Your task to perform on an android device: show emergency info Image 0: 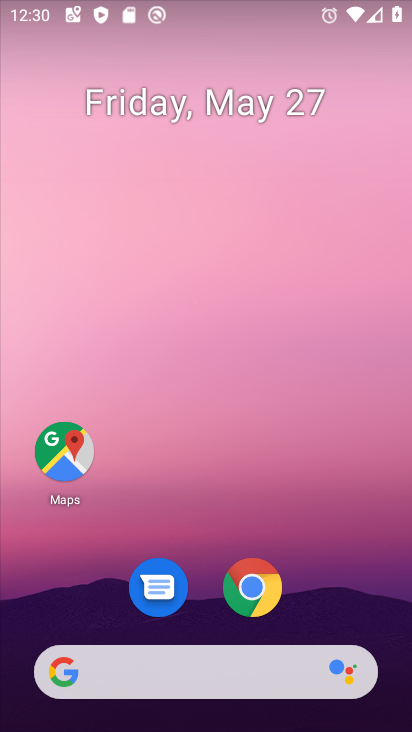
Step 0: drag from (283, 683) to (282, 29)
Your task to perform on an android device: show emergency info Image 1: 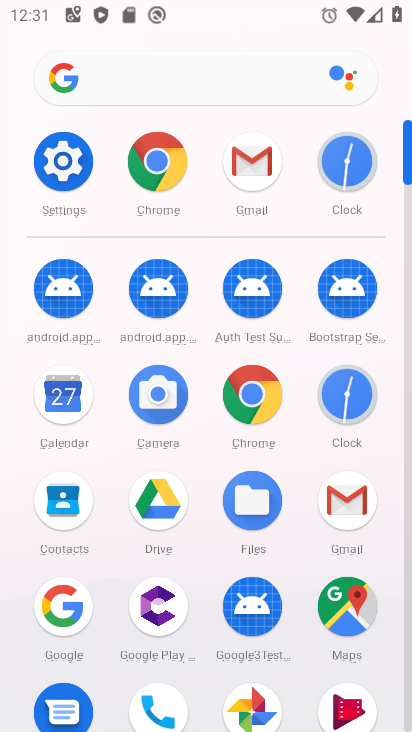
Step 1: click (49, 148)
Your task to perform on an android device: show emergency info Image 2: 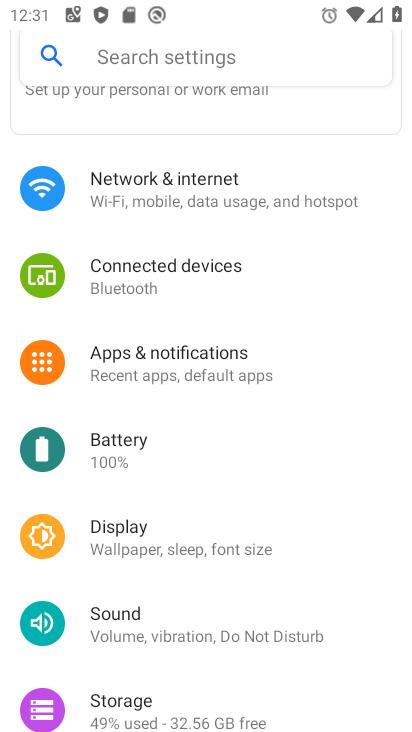
Step 2: click (129, 55)
Your task to perform on an android device: show emergency info Image 3: 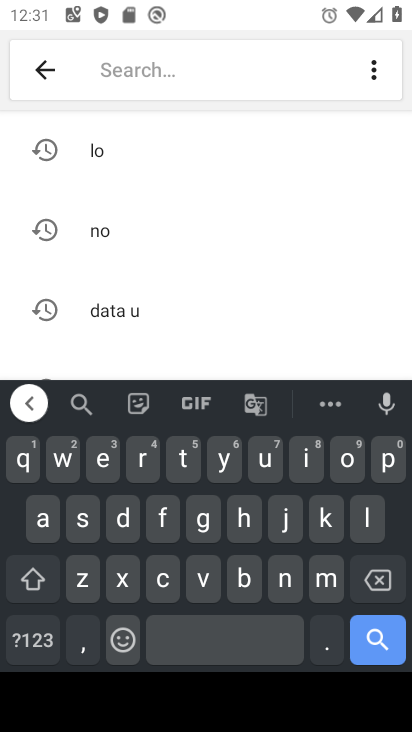
Step 3: click (115, 465)
Your task to perform on an android device: show emergency info Image 4: 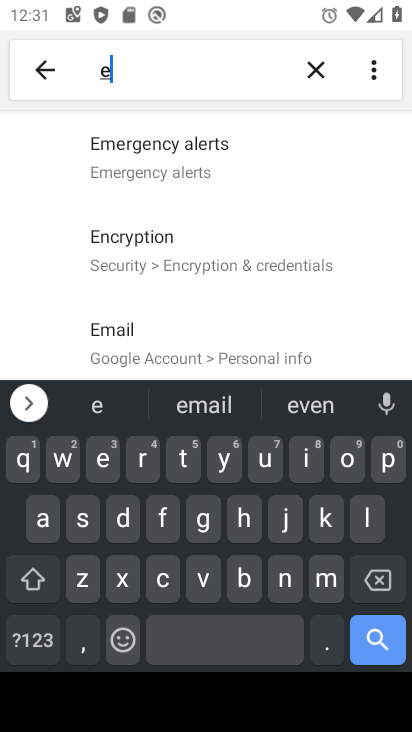
Step 4: click (319, 583)
Your task to perform on an android device: show emergency info Image 5: 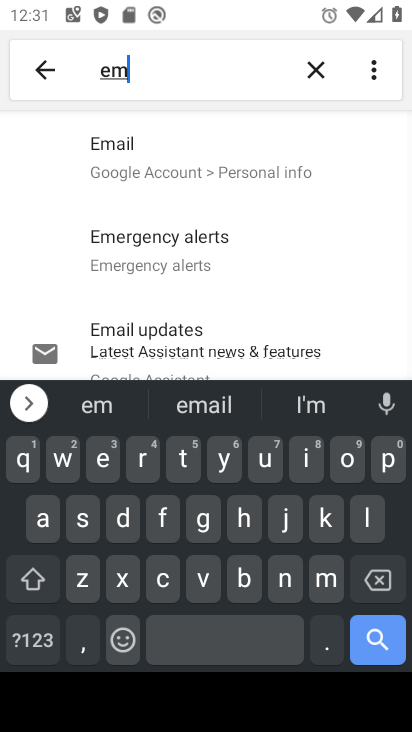
Step 5: click (103, 466)
Your task to perform on an android device: show emergency info Image 6: 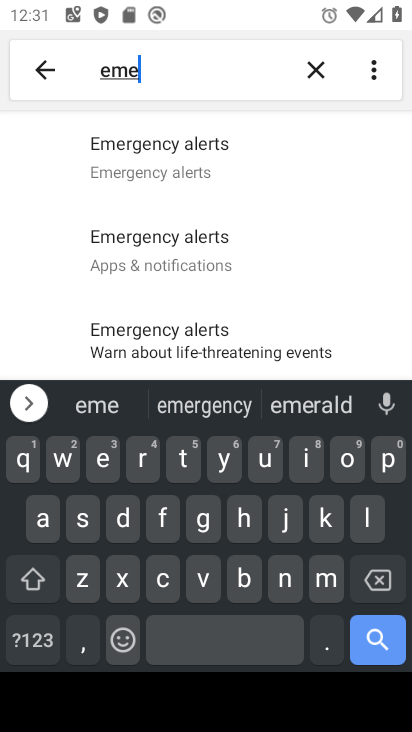
Step 6: click (201, 406)
Your task to perform on an android device: show emergency info Image 7: 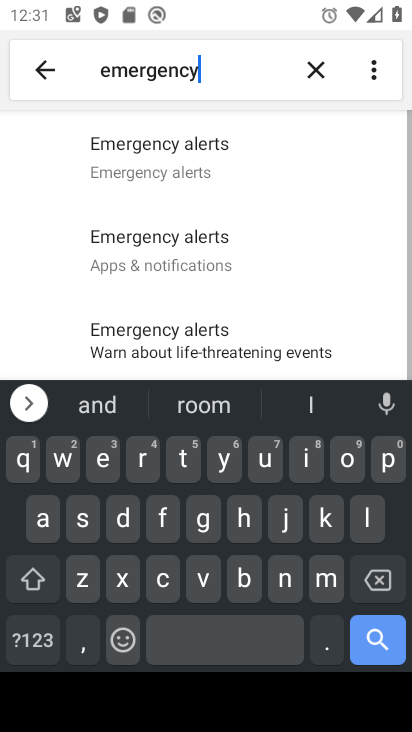
Step 7: click (308, 469)
Your task to perform on an android device: show emergency info Image 8: 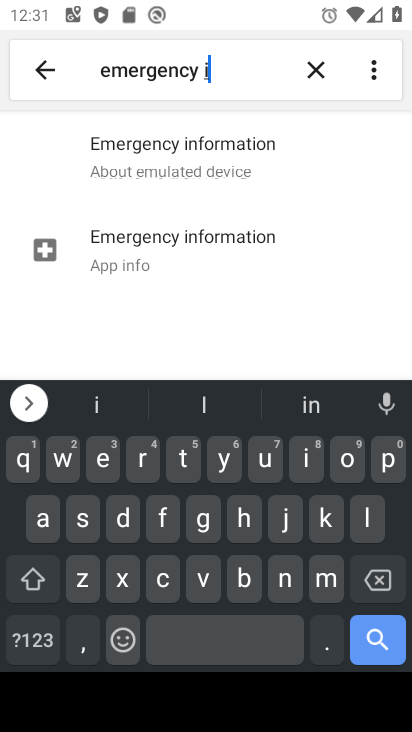
Step 8: click (201, 159)
Your task to perform on an android device: show emergency info Image 9: 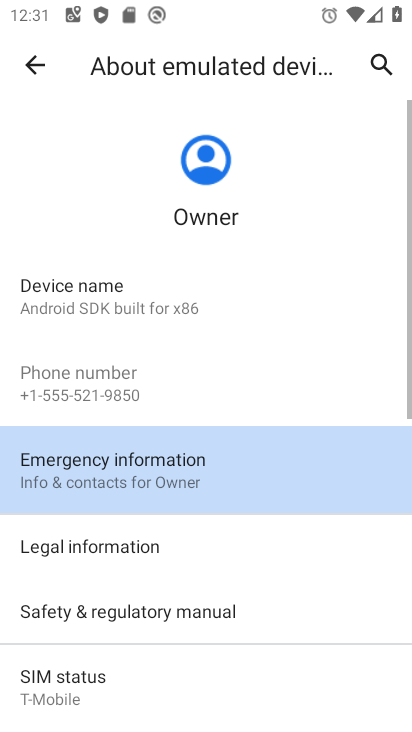
Step 9: click (122, 468)
Your task to perform on an android device: show emergency info Image 10: 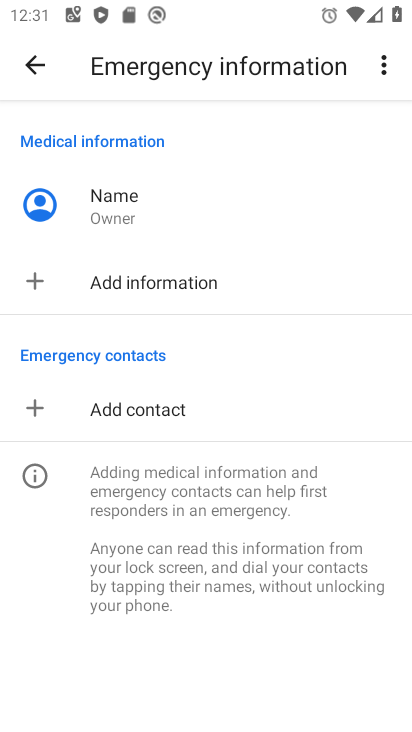
Step 10: task complete